Your task to perform on an android device: Open CNN.com Image 0: 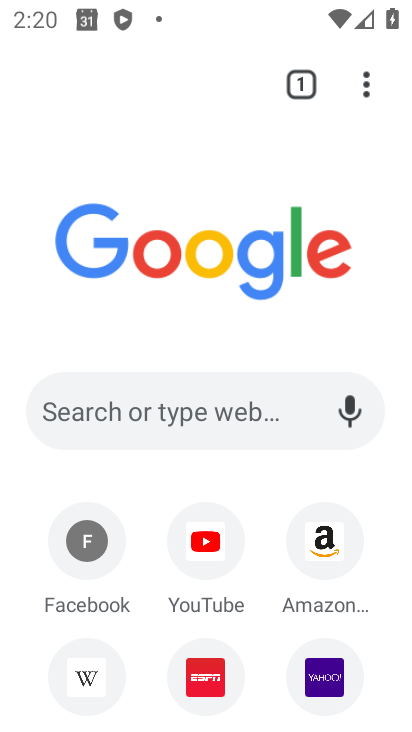
Step 0: press home button
Your task to perform on an android device: Open CNN.com Image 1: 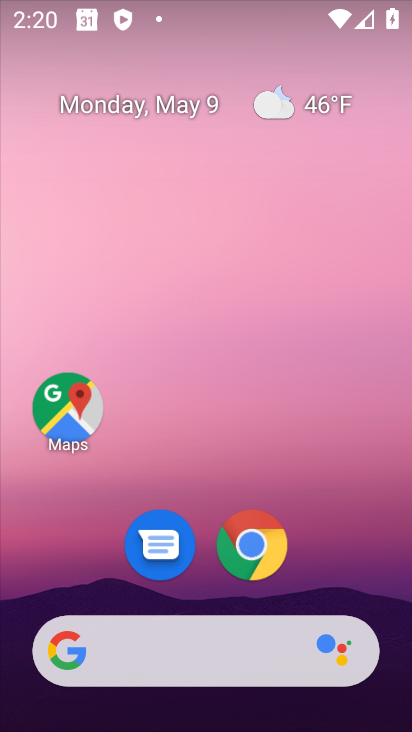
Step 1: click (235, 567)
Your task to perform on an android device: Open CNN.com Image 2: 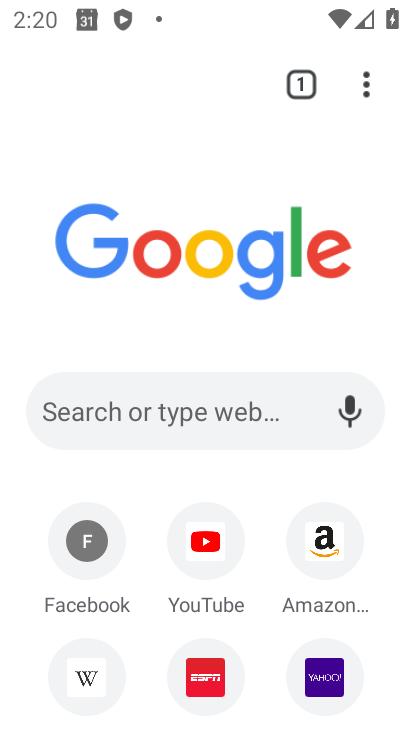
Step 2: drag from (214, 630) to (292, 330)
Your task to perform on an android device: Open CNN.com Image 3: 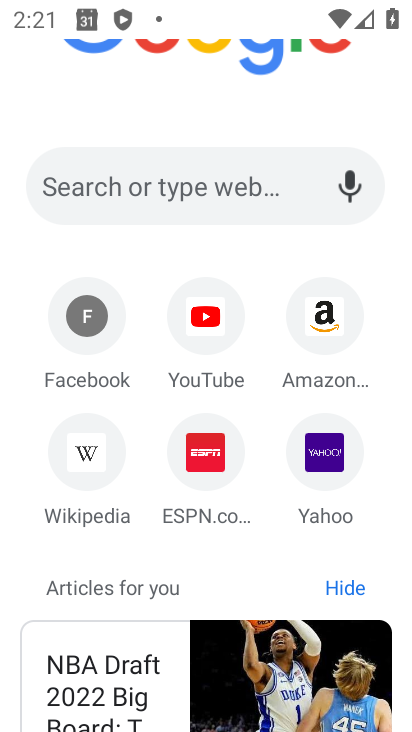
Step 3: click (254, 159)
Your task to perform on an android device: Open CNN.com Image 4: 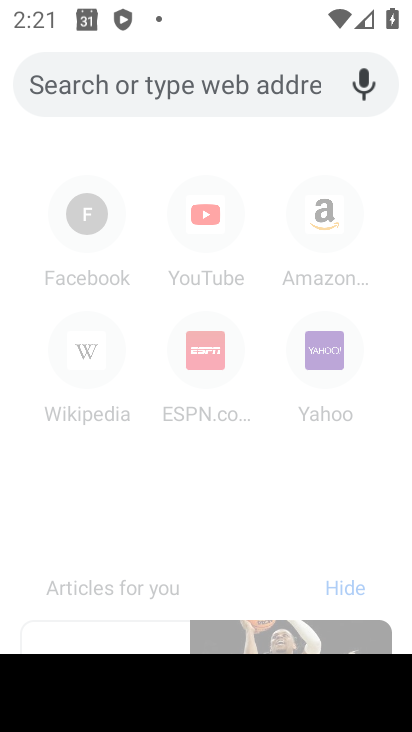
Step 4: type "CNN.com"
Your task to perform on an android device: Open CNN.com Image 5: 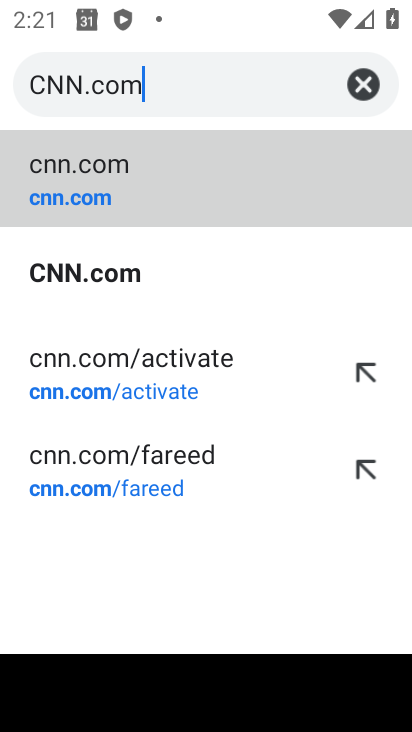
Step 5: click (152, 176)
Your task to perform on an android device: Open CNN.com Image 6: 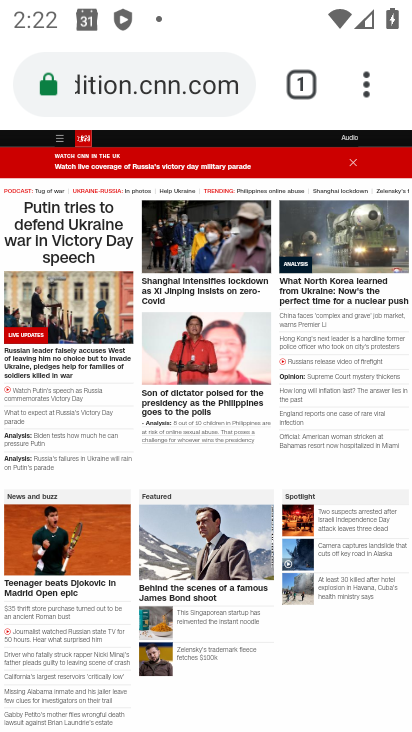
Step 6: task complete